Your task to perform on an android device: Show the shopping cart on target.com. Image 0: 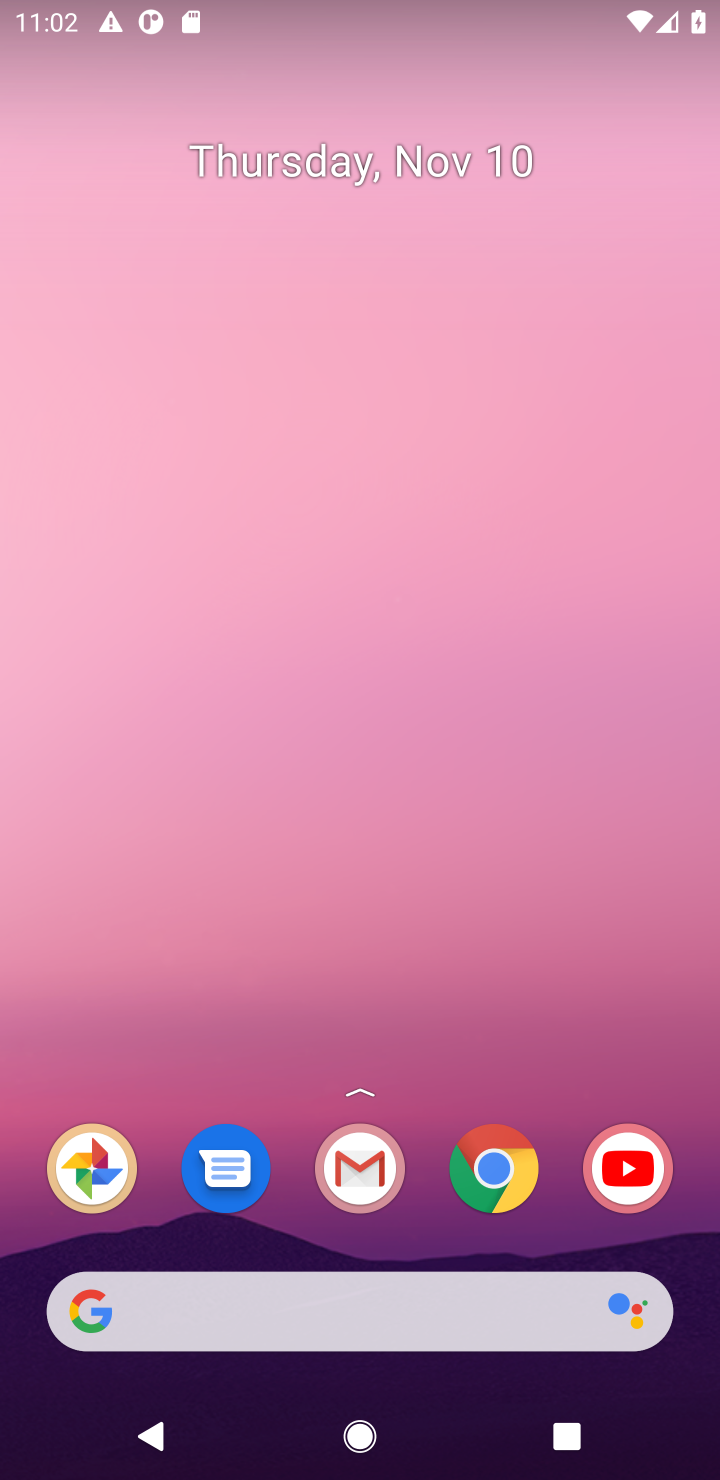
Step 0: click (508, 1188)
Your task to perform on an android device: Show the shopping cart on target.com. Image 1: 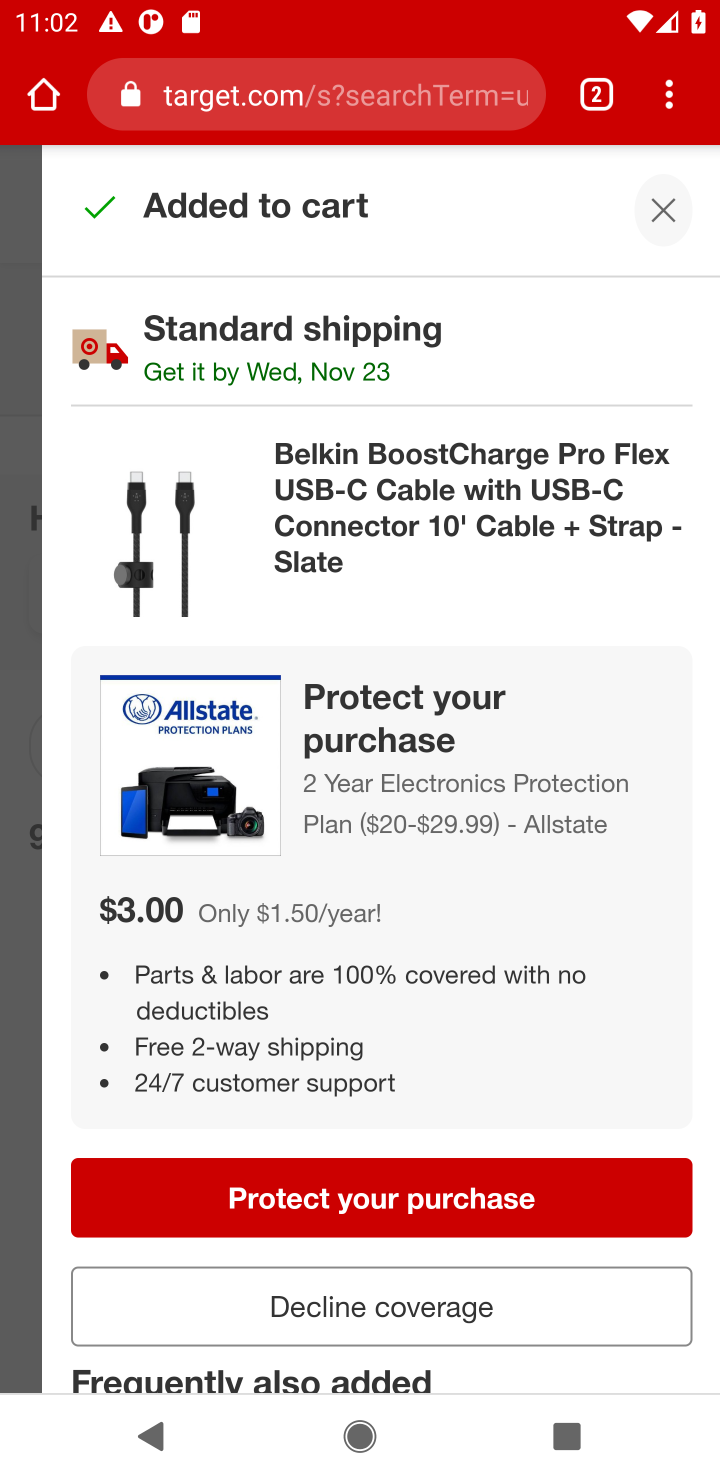
Step 1: click (670, 199)
Your task to perform on an android device: Show the shopping cart on target.com. Image 2: 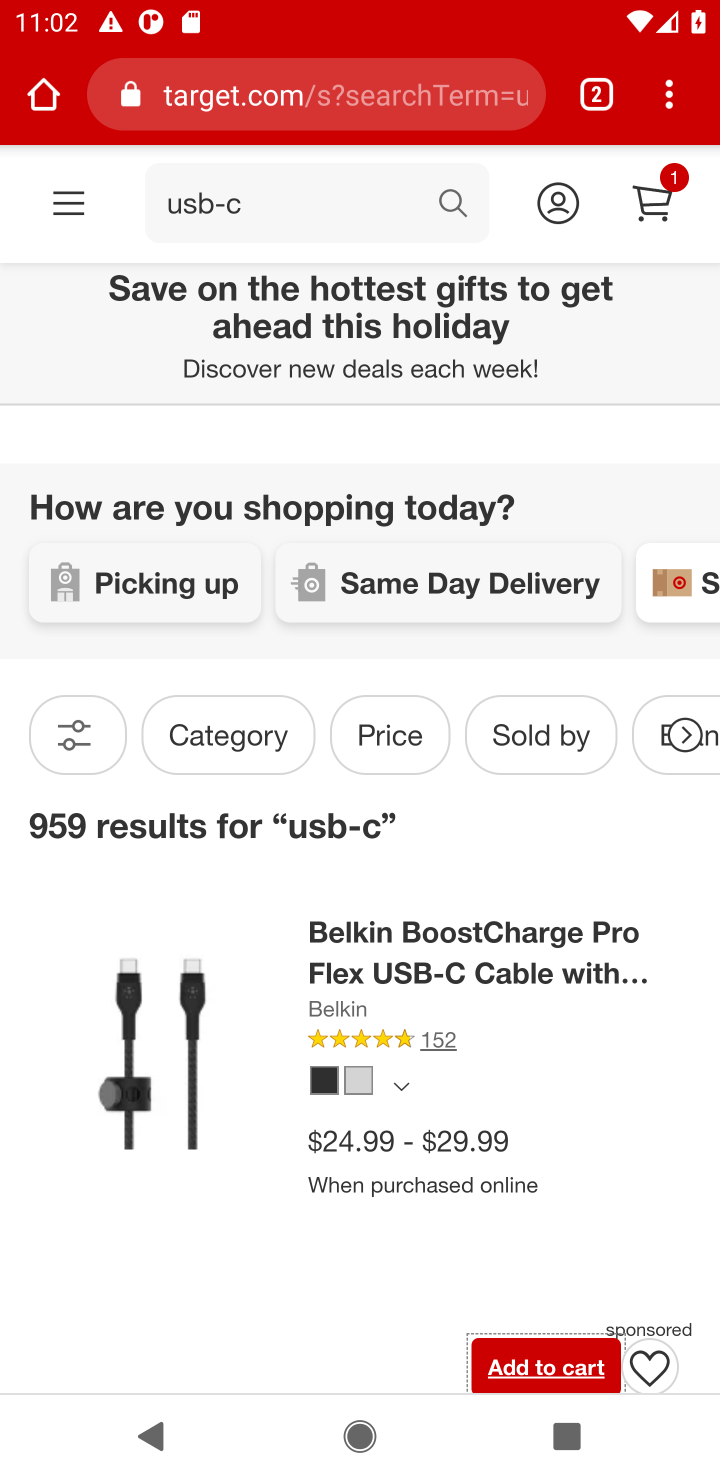
Step 2: click (657, 209)
Your task to perform on an android device: Show the shopping cart on target.com. Image 3: 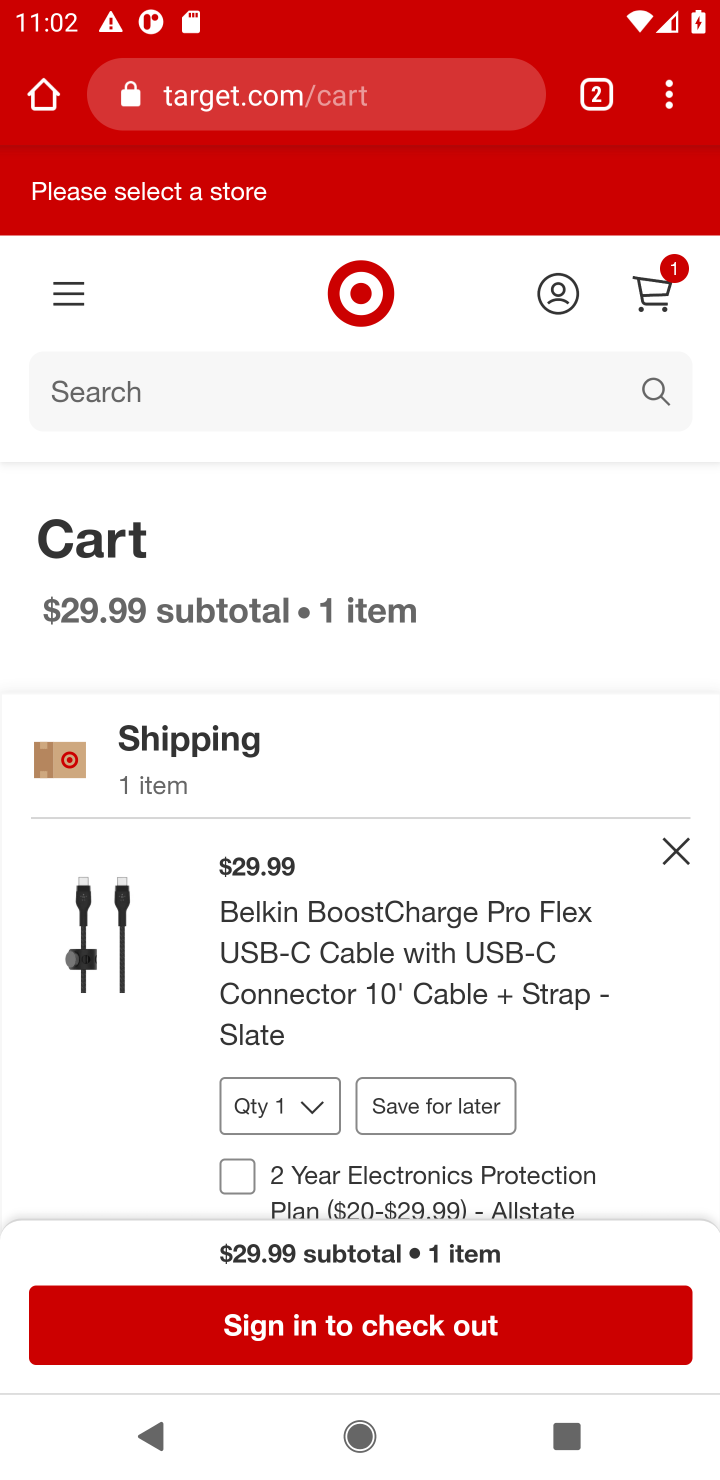
Step 3: task complete